Your task to perform on an android device: open a new tab in the chrome app Image 0: 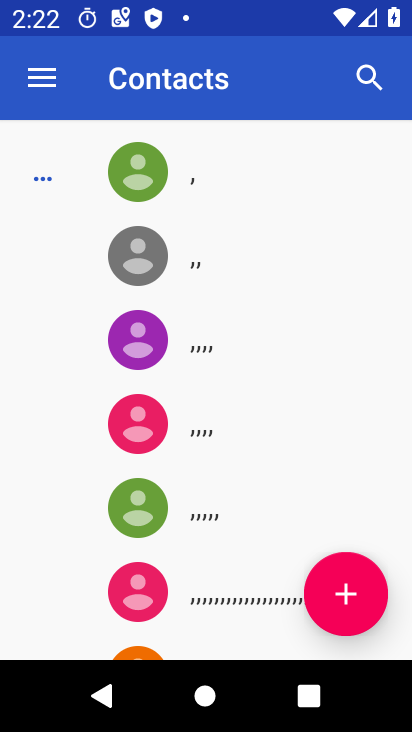
Step 0: press home button
Your task to perform on an android device: open a new tab in the chrome app Image 1: 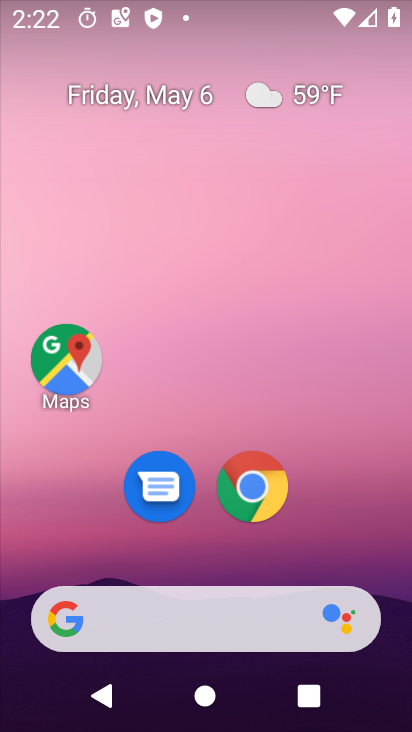
Step 1: click (257, 491)
Your task to perform on an android device: open a new tab in the chrome app Image 2: 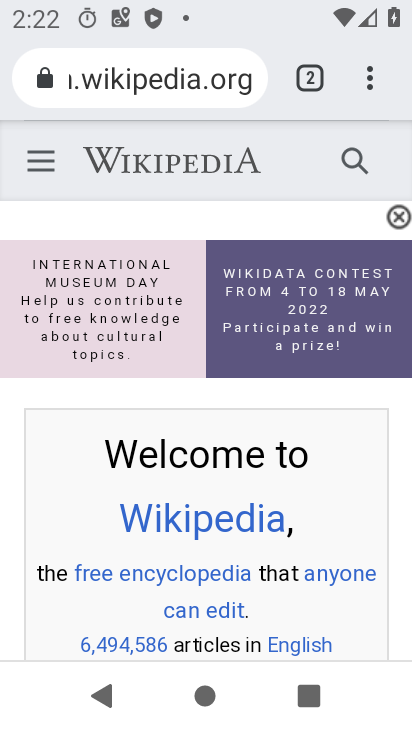
Step 2: click (371, 70)
Your task to perform on an android device: open a new tab in the chrome app Image 3: 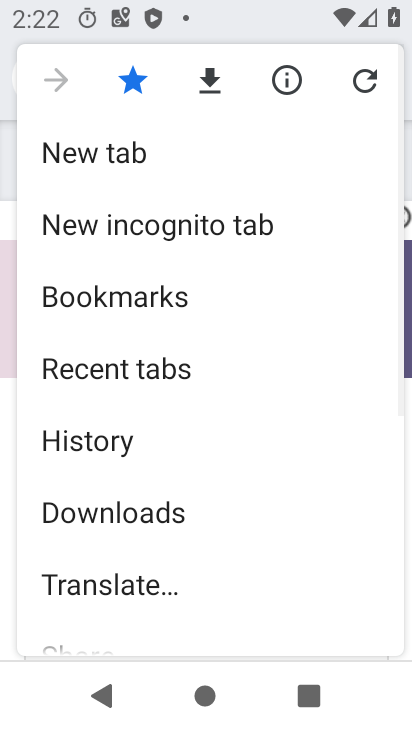
Step 3: click (103, 156)
Your task to perform on an android device: open a new tab in the chrome app Image 4: 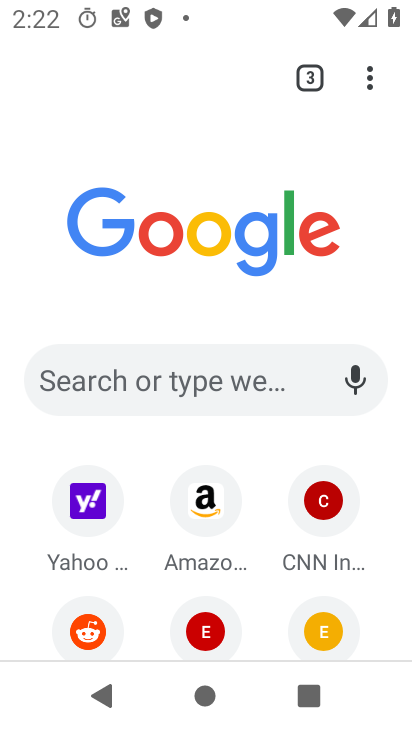
Step 4: task complete